Your task to perform on an android device: find which apps use the phone's location Image 0: 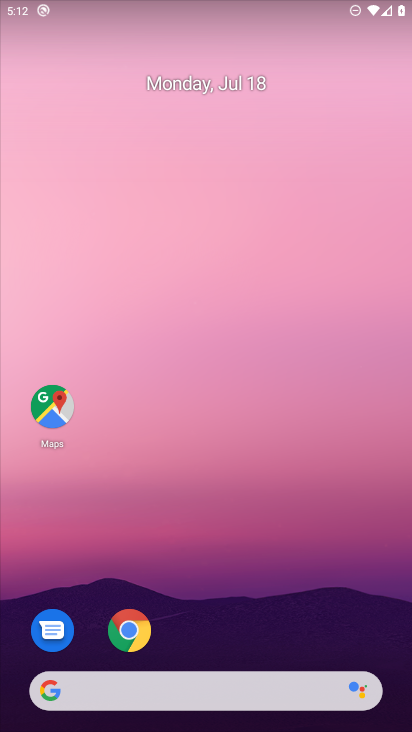
Step 0: press home button
Your task to perform on an android device: find which apps use the phone's location Image 1: 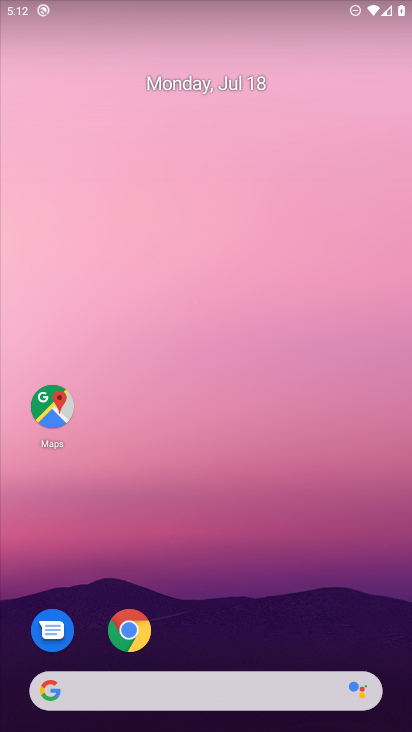
Step 1: drag from (203, 650) to (226, 111)
Your task to perform on an android device: find which apps use the phone's location Image 2: 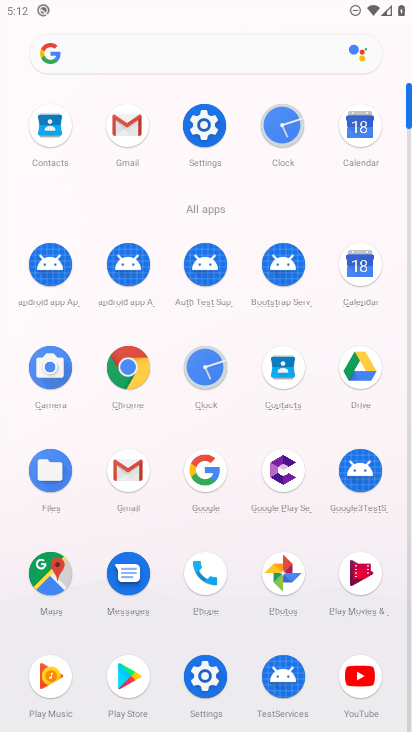
Step 2: click (201, 119)
Your task to perform on an android device: find which apps use the phone's location Image 3: 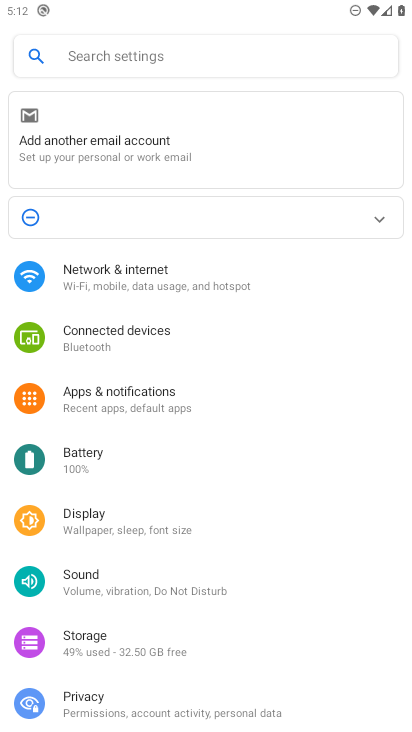
Step 3: drag from (155, 685) to (190, 442)
Your task to perform on an android device: find which apps use the phone's location Image 4: 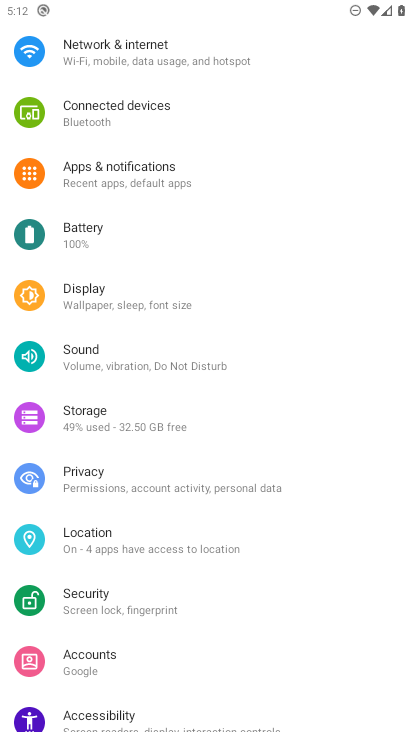
Step 4: click (125, 535)
Your task to perform on an android device: find which apps use the phone's location Image 5: 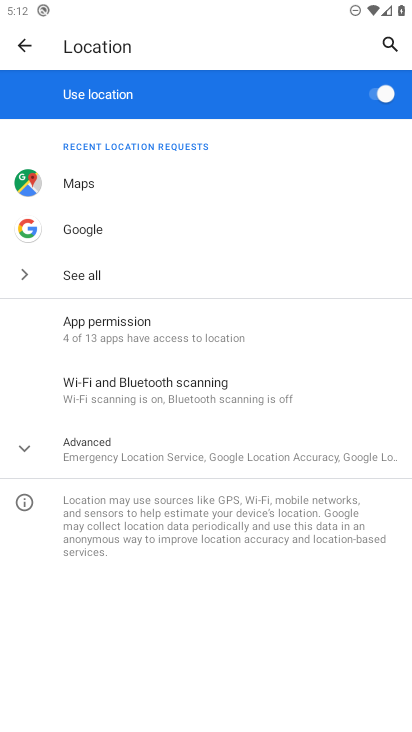
Step 5: click (132, 331)
Your task to perform on an android device: find which apps use the phone's location Image 6: 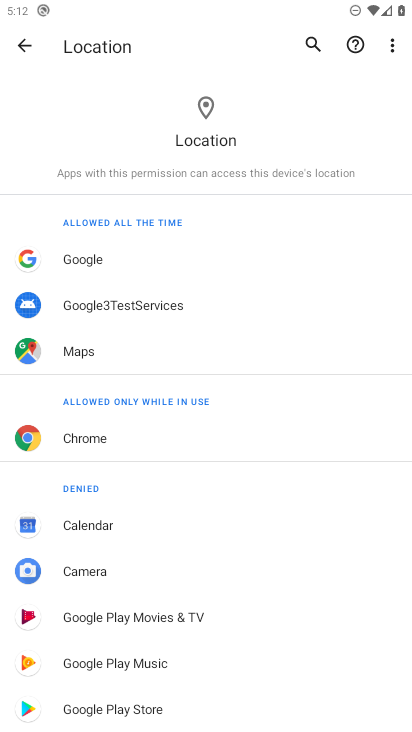
Step 6: task complete